Your task to perform on an android device: Go to CNN.com Image 0: 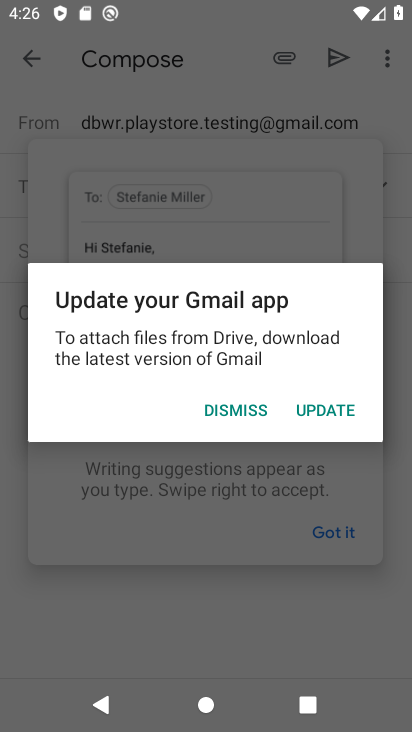
Step 0: press home button
Your task to perform on an android device: Go to CNN.com Image 1: 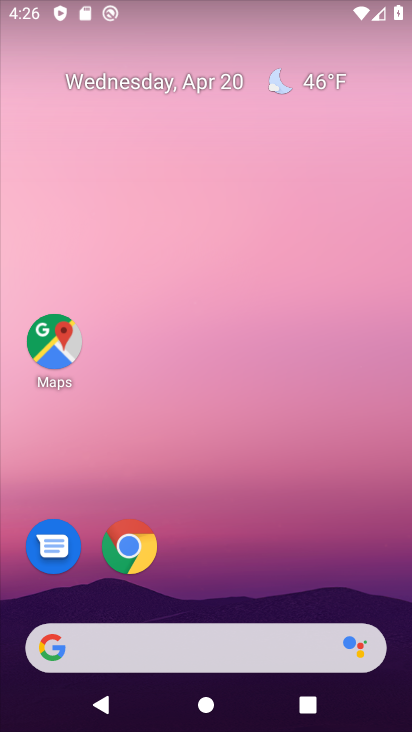
Step 1: click (130, 551)
Your task to perform on an android device: Go to CNN.com Image 2: 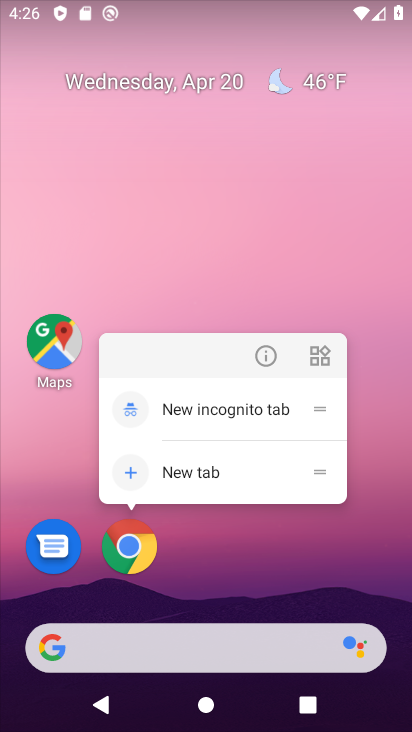
Step 2: click (137, 543)
Your task to perform on an android device: Go to CNN.com Image 3: 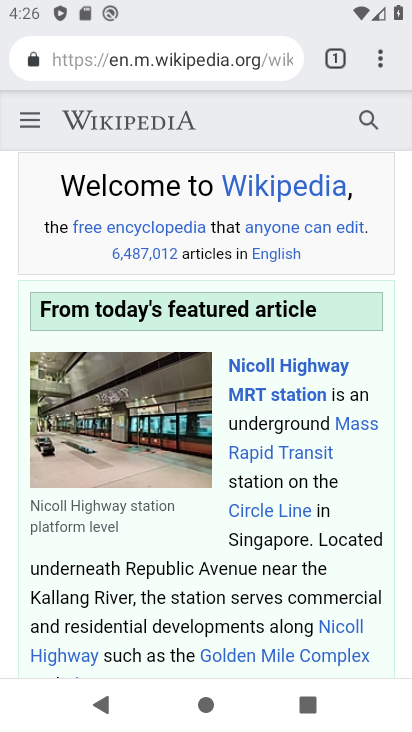
Step 3: click (204, 65)
Your task to perform on an android device: Go to CNN.com Image 4: 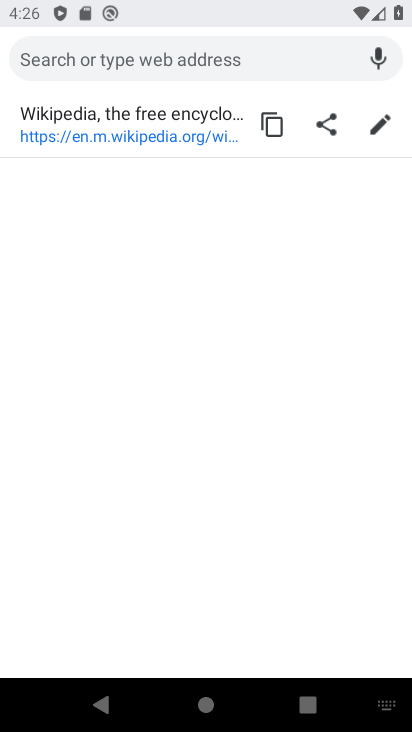
Step 4: type "CNN.com"
Your task to perform on an android device: Go to CNN.com Image 5: 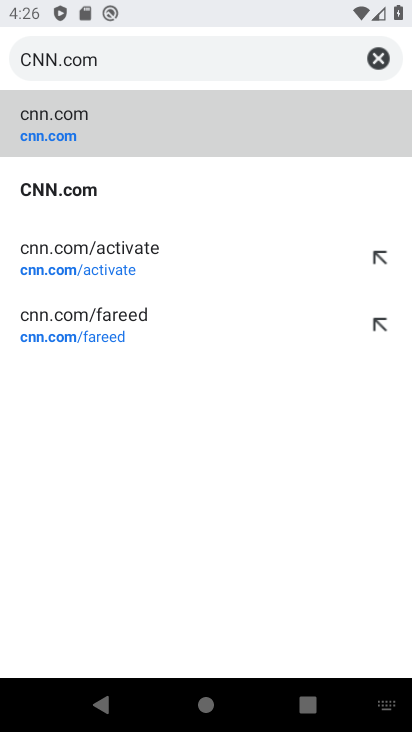
Step 5: click (40, 124)
Your task to perform on an android device: Go to CNN.com Image 6: 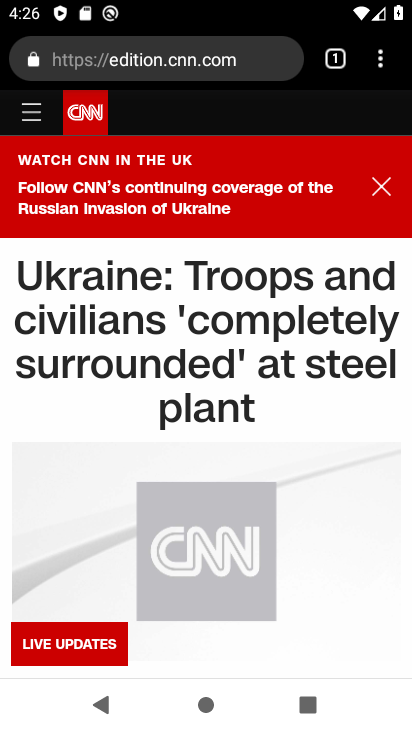
Step 6: task complete